Your task to perform on an android device: Search for the best rated lawnmower on Lowes.com Image 0: 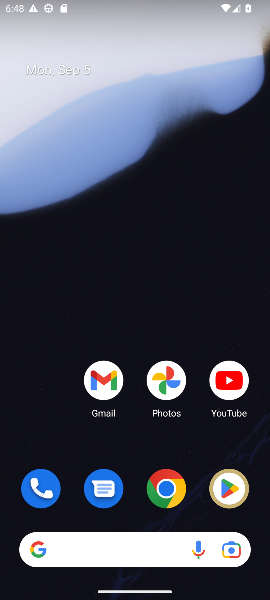
Step 0: click (157, 493)
Your task to perform on an android device: Search for the best rated lawnmower on Lowes.com Image 1: 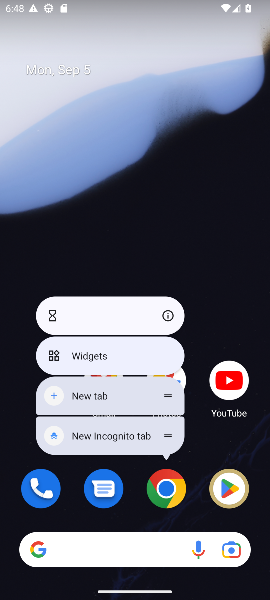
Step 1: click (175, 498)
Your task to perform on an android device: Search for the best rated lawnmower on Lowes.com Image 2: 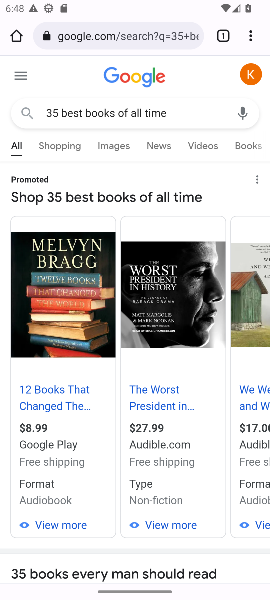
Step 2: click (144, 33)
Your task to perform on an android device: Search for the best rated lawnmower on Lowes.com Image 3: 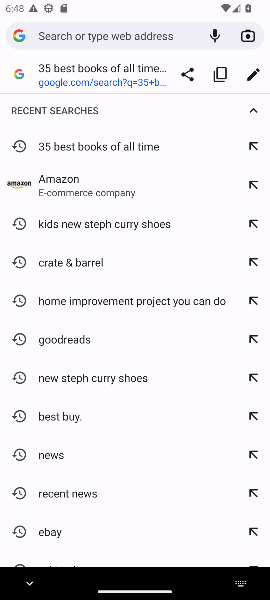
Step 3: type "lowes.com"
Your task to perform on an android device: Search for the best rated lawnmower on Lowes.com Image 4: 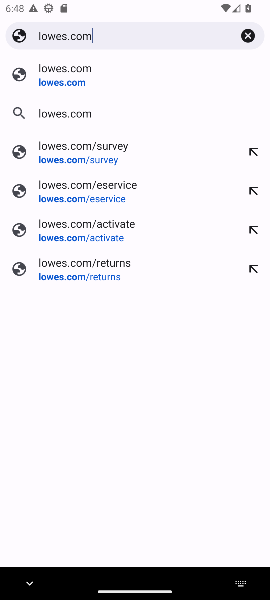
Step 4: press enter
Your task to perform on an android device: Search for the best rated lawnmower on Lowes.com Image 5: 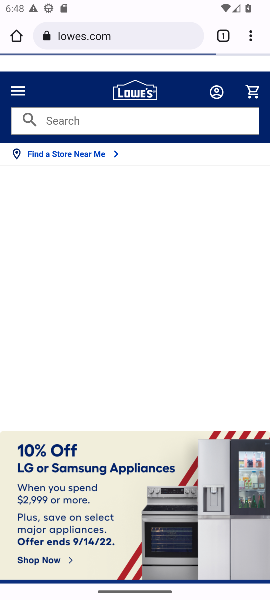
Step 5: click (169, 119)
Your task to perform on an android device: Search for the best rated lawnmower on Lowes.com Image 6: 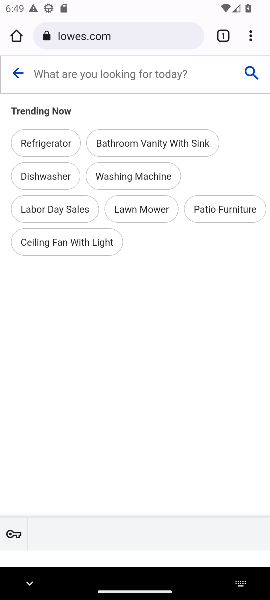
Step 6: type "best rated lawnmower"
Your task to perform on an android device: Search for the best rated lawnmower on Lowes.com Image 7: 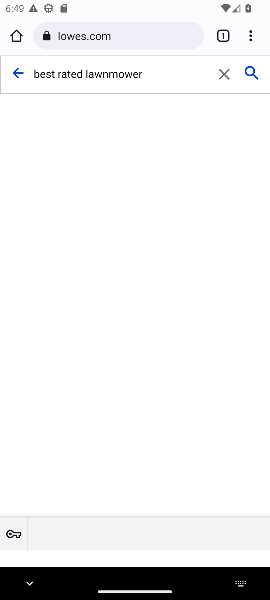
Step 7: press enter
Your task to perform on an android device: Search for the best rated lawnmower on Lowes.com Image 8: 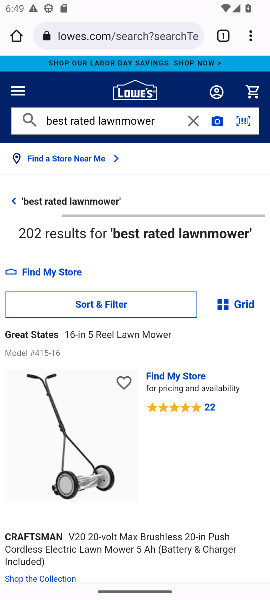
Step 8: drag from (193, 341) to (184, 306)
Your task to perform on an android device: Search for the best rated lawnmower on Lowes.com Image 9: 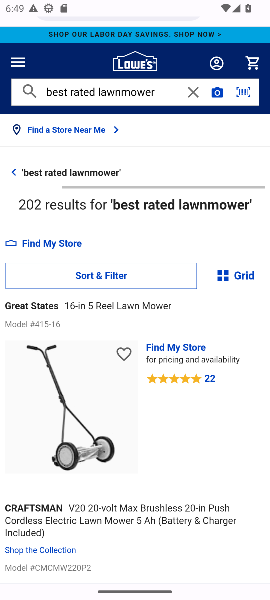
Step 9: click (140, 273)
Your task to perform on an android device: Search for the best rated lawnmower on Lowes.com Image 10: 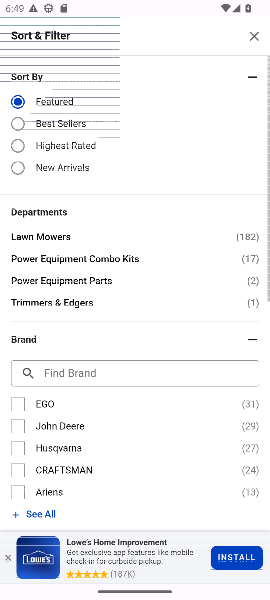
Step 10: click (50, 146)
Your task to perform on an android device: Search for the best rated lawnmower on Lowes.com Image 11: 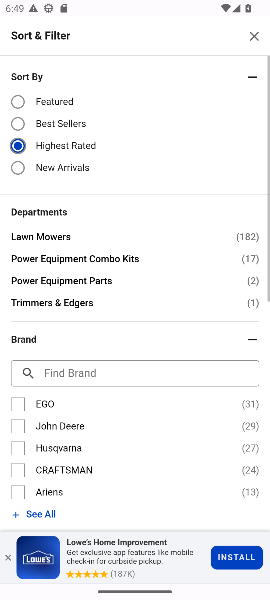
Step 11: click (5, 555)
Your task to perform on an android device: Search for the best rated lawnmower on Lowes.com Image 12: 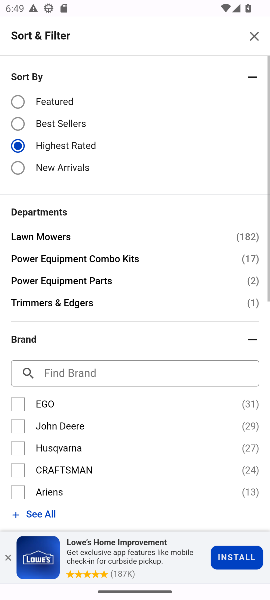
Step 12: click (8, 560)
Your task to perform on an android device: Search for the best rated lawnmower on Lowes.com Image 13: 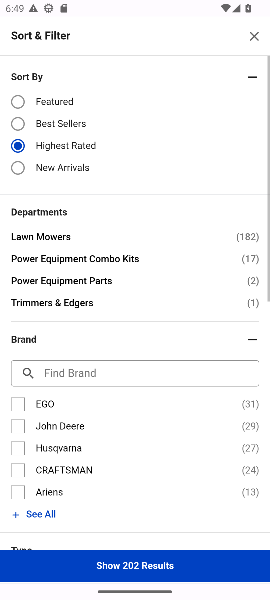
Step 13: click (146, 564)
Your task to perform on an android device: Search for the best rated lawnmower on Lowes.com Image 14: 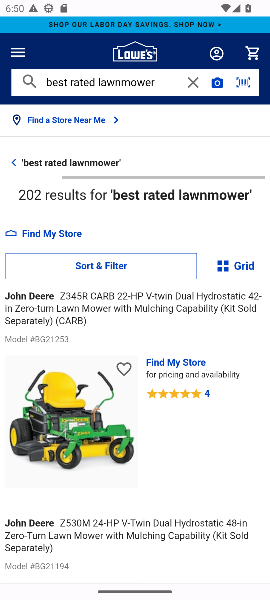
Step 14: click (185, 458)
Your task to perform on an android device: Search for the best rated lawnmower on Lowes.com Image 15: 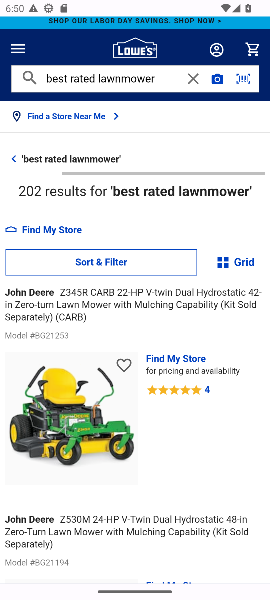
Step 15: drag from (176, 413) to (179, 200)
Your task to perform on an android device: Search for the best rated lawnmower on Lowes.com Image 16: 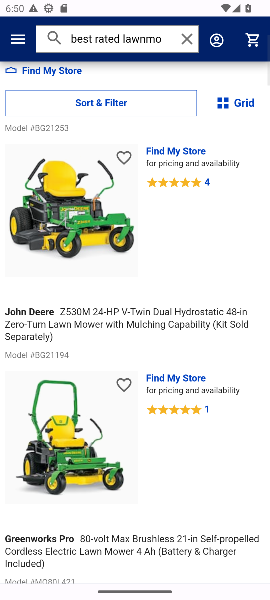
Step 16: drag from (146, 516) to (170, 207)
Your task to perform on an android device: Search for the best rated lawnmower on Lowes.com Image 17: 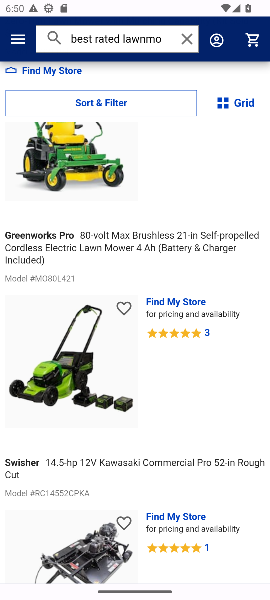
Step 17: drag from (155, 447) to (179, 205)
Your task to perform on an android device: Search for the best rated lawnmower on Lowes.com Image 18: 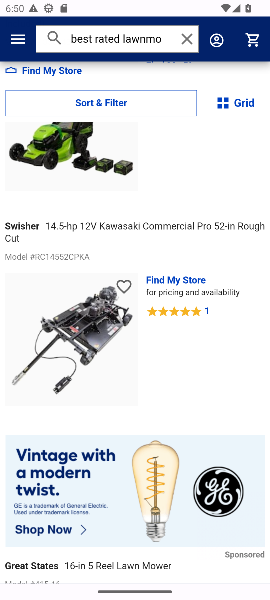
Step 18: drag from (168, 463) to (167, 289)
Your task to perform on an android device: Search for the best rated lawnmower on Lowes.com Image 19: 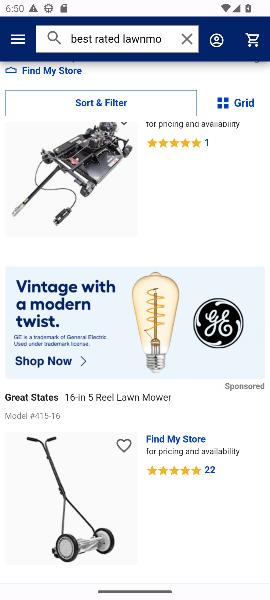
Step 19: drag from (173, 504) to (180, 284)
Your task to perform on an android device: Search for the best rated lawnmower on Lowes.com Image 20: 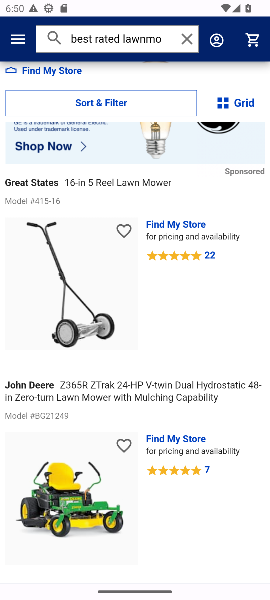
Step 20: drag from (154, 509) to (170, 181)
Your task to perform on an android device: Search for the best rated lawnmower on Lowes.com Image 21: 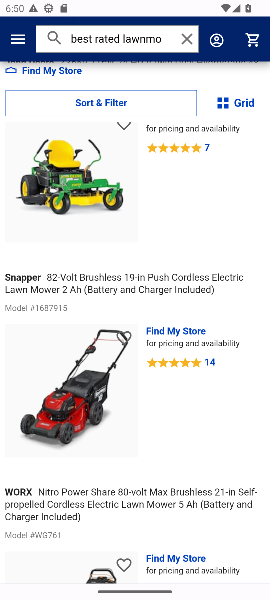
Step 21: drag from (116, 232) to (104, 177)
Your task to perform on an android device: Search for the best rated lawnmower on Lowes.com Image 22: 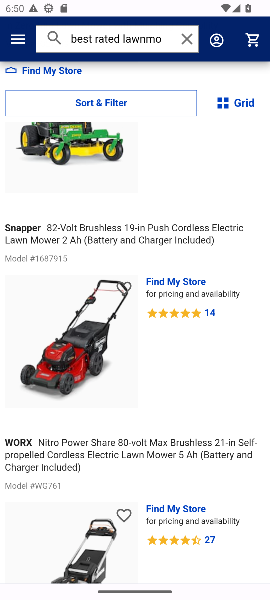
Step 22: drag from (175, 398) to (187, 182)
Your task to perform on an android device: Search for the best rated lawnmower on Lowes.com Image 23: 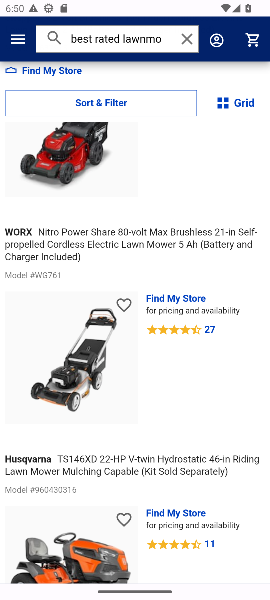
Step 23: drag from (111, 441) to (101, 264)
Your task to perform on an android device: Search for the best rated lawnmower on Lowes.com Image 24: 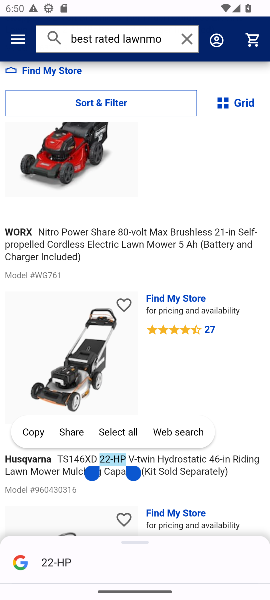
Step 24: drag from (114, 423) to (113, 137)
Your task to perform on an android device: Search for the best rated lawnmower on Lowes.com Image 25: 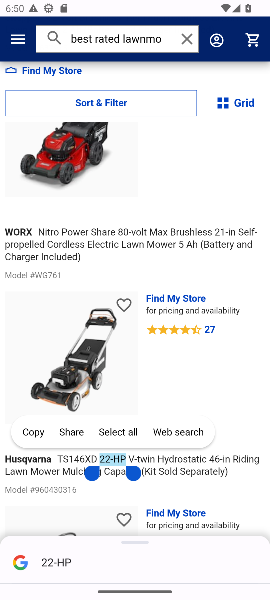
Step 25: click (191, 463)
Your task to perform on an android device: Search for the best rated lawnmower on Lowes.com Image 26: 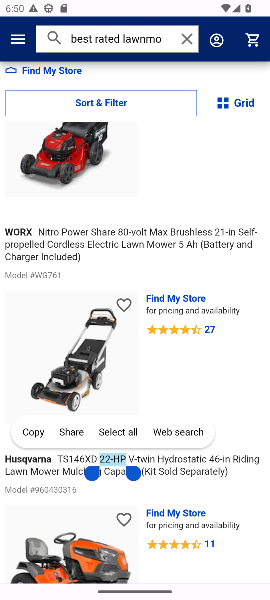
Step 26: task complete